Your task to perform on an android device: move an email to a new category in the gmail app Image 0: 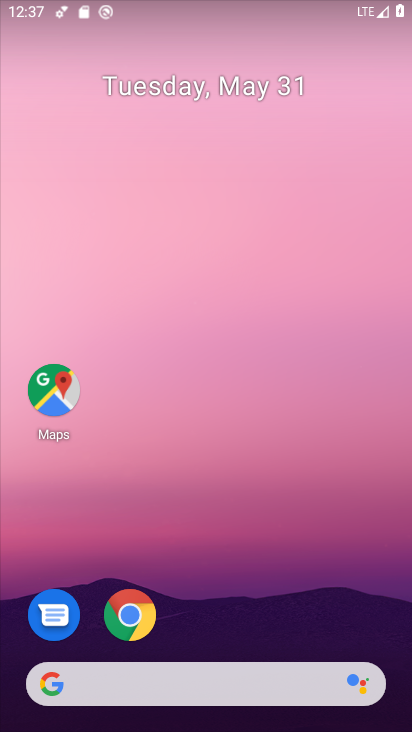
Step 0: drag from (218, 577) to (285, 2)
Your task to perform on an android device: move an email to a new category in the gmail app Image 1: 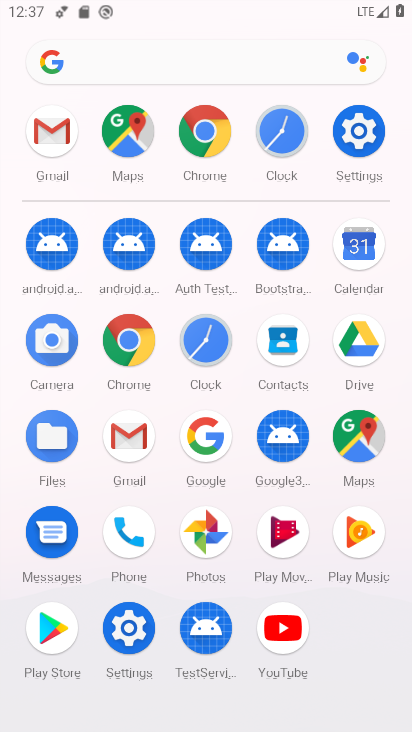
Step 1: click (128, 453)
Your task to perform on an android device: move an email to a new category in the gmail app Image 2: 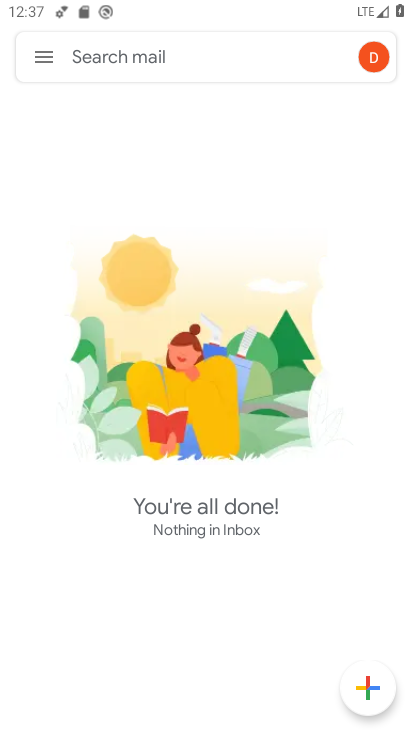
Step 2: click (36, 52)
Your task to perform on an android device: move an email to a new category in the gmail app Image 3: 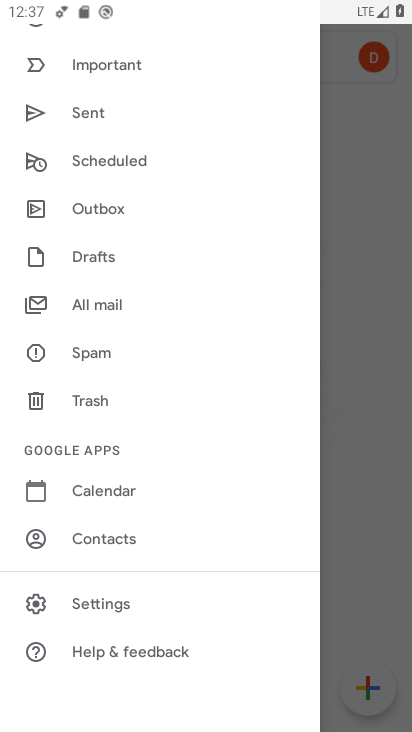
Step 3: click (113, 310)
Your task to perform on an android device: move an email to a new category in the gmail app Image 4: 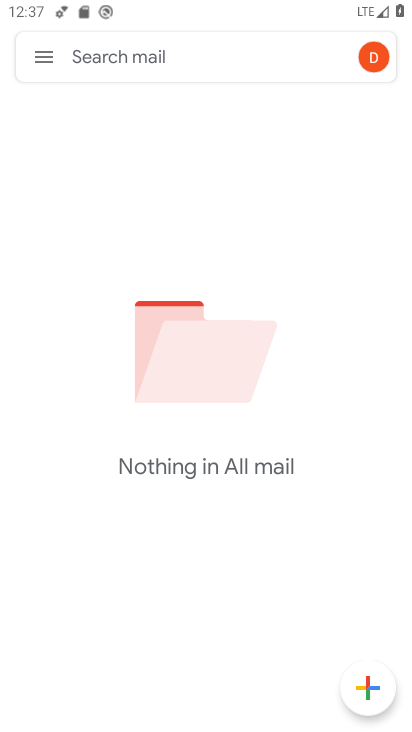
Step 4: task complete